Your task to perform on an android device: toggle wifi Image 0: 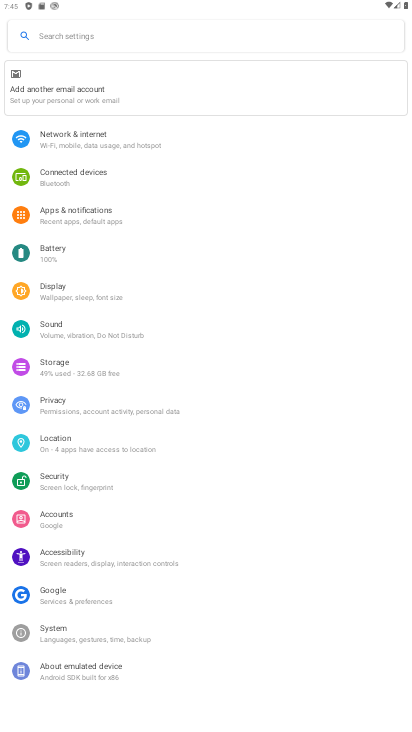
Step 0: press home button
Your task to perform on an android device: toggle wifi Image 1: 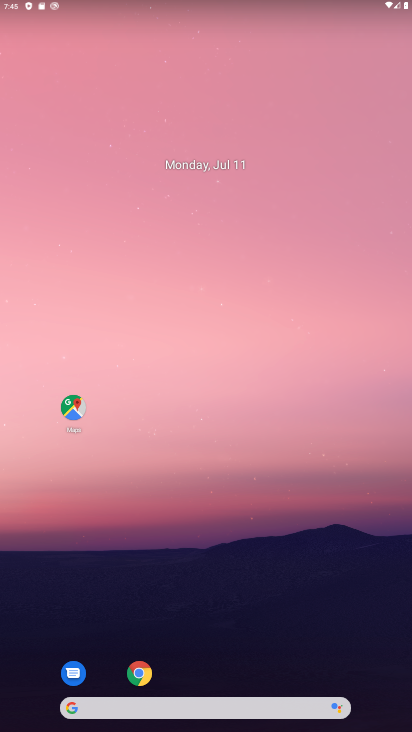
Step 1: drag from (278, 580) to (232, 100)
Your task to perform on an android device: toggle wifi Image 2: 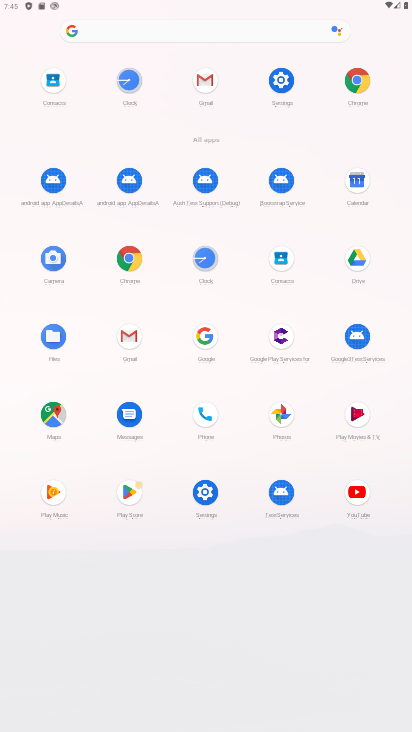
Step 2: click (281, 83)
Your task to perform on an android device: toggle wifi Image 3: 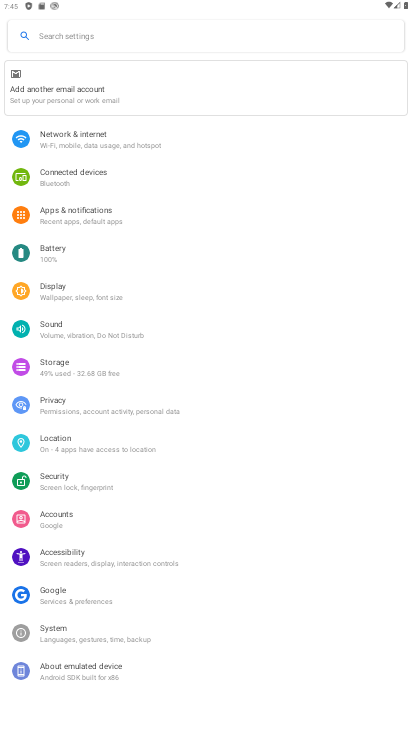
Step 3: click (98, 132)
Your task to perform on an android device: toggle wifi Image 4: 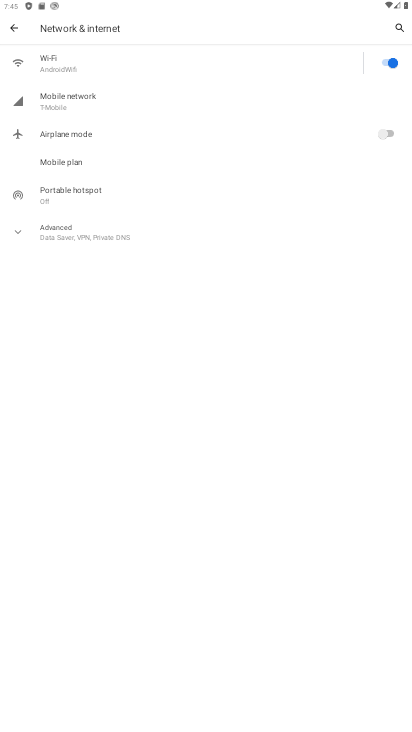
Step 4: click (386, 64)
Your task to perform on an android device: toggle wifi Image 5: 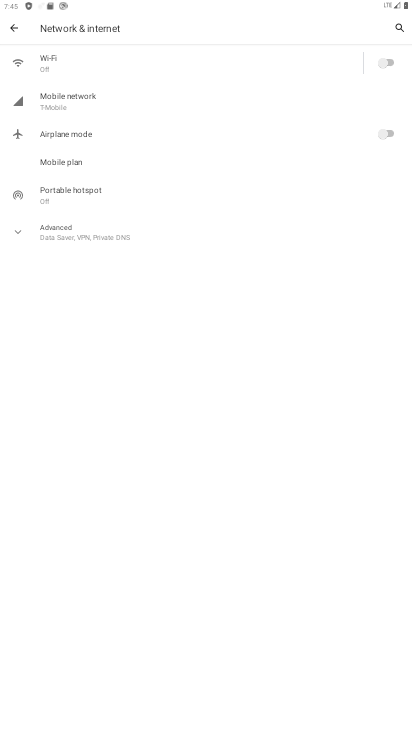
Step 5: task complete